Your task to perform on an android device: Open Wikipedia Image 0: 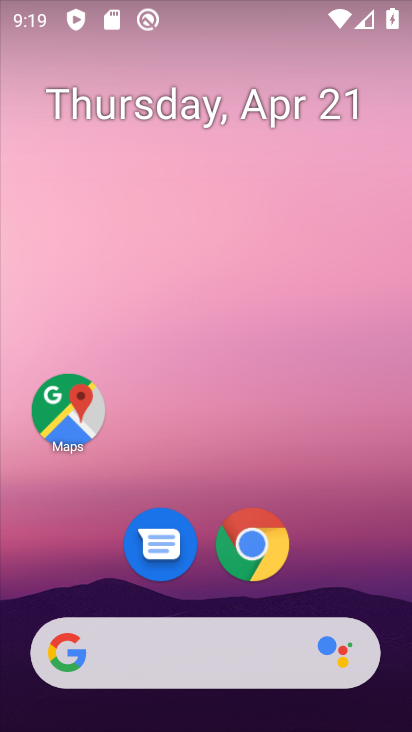
Step 0: drag from (337, 556) to (239, 46)
Your task to perform on an android device: Open Wikipedia Image 1: 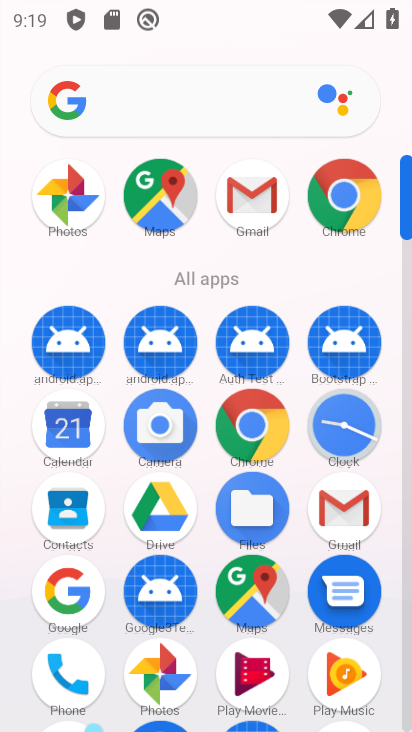
Step 1: drag from (11, 502) to (11, 222)
Your task to perform on an android device: Open Wikipedia Image 2: 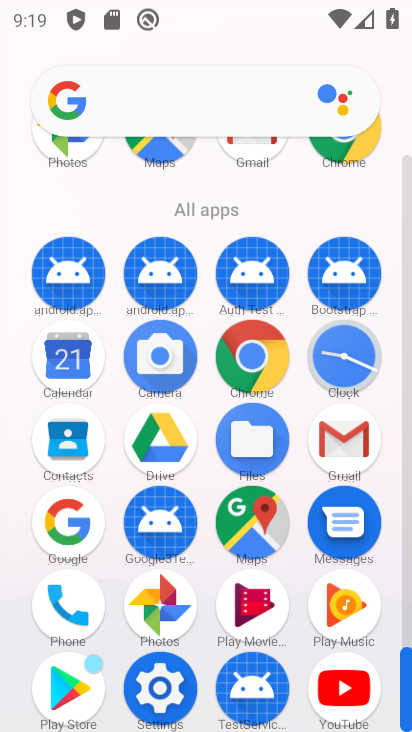
Step 2: click (250, 354)
Your task to perform on an android device: Open Wikipedia Image 3: 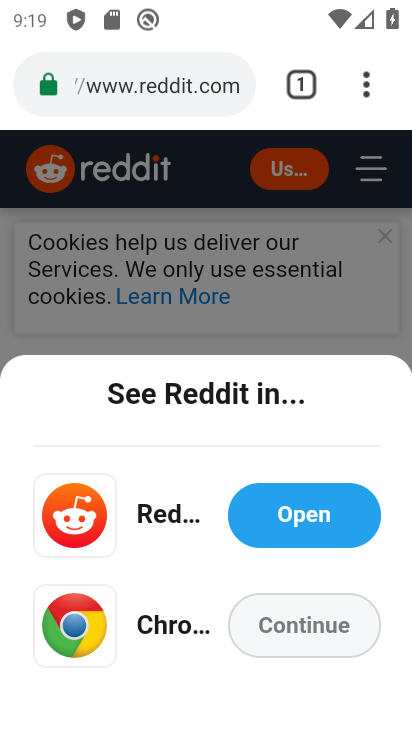
Step 3: click (166, 86)
Your task to perform on an android device: Open Wikipedia Image 4: 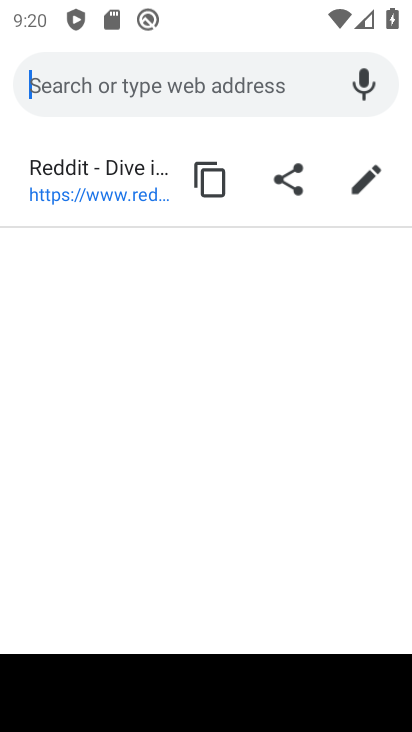
Step 4: type "Wikipedia"
Your task to perform on an android device: Open Wikipedia Image 5: 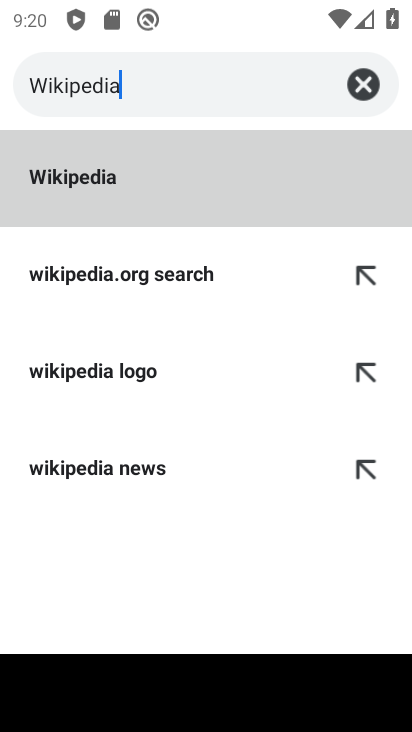
Step 5: click (217, 184)
Your task to perform on an android device: Open Wikipedia Image 6: 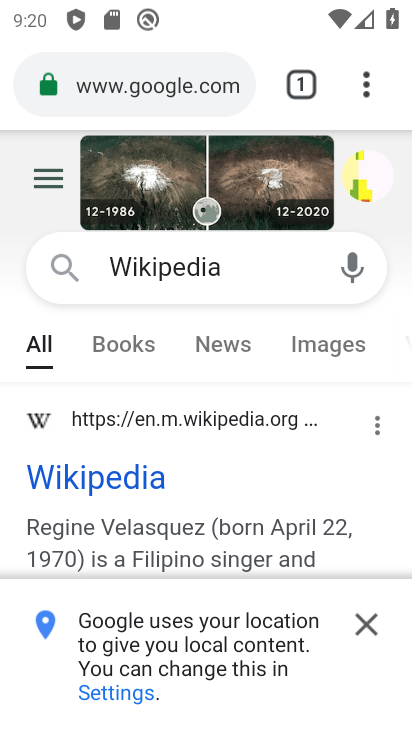
Step 6: click (139, 474)
Your task to perform on an android device: Open Wikipedia Image 7: 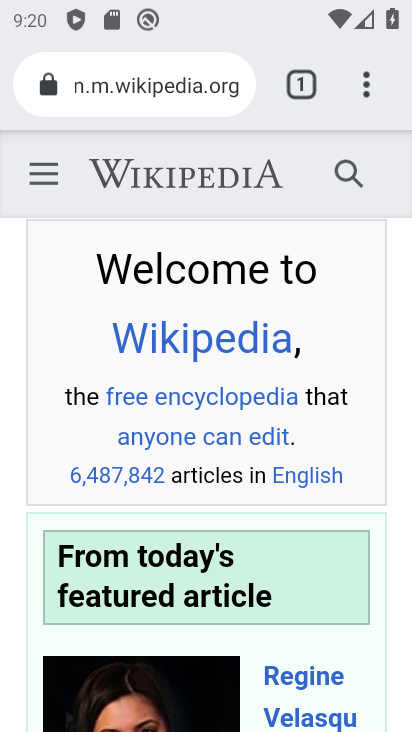
Step 7: task complete